Your task to perform on an android device: Open Google Maps Image 0: 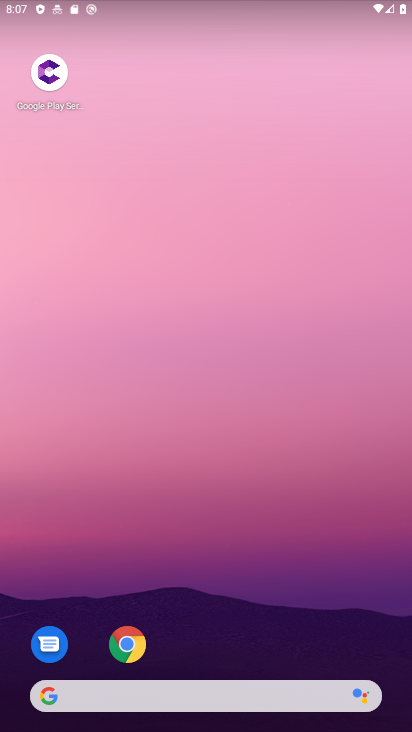
Step 0: drag from (215, 447) to (202, 374)
Your task to perform on an android device: Open Google Maps Image 1: 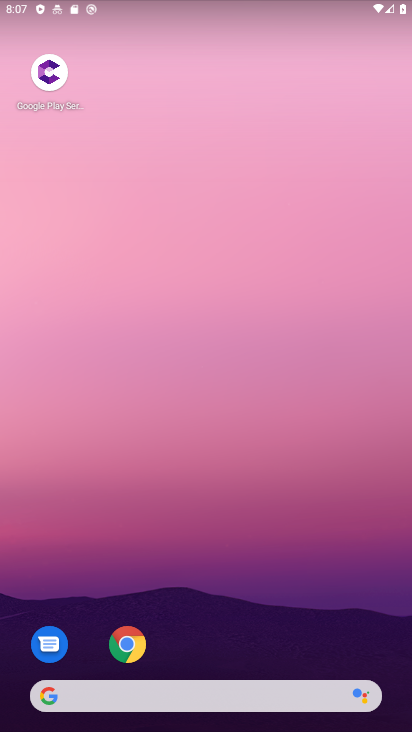
Step 1: drag from (332, 702) to (227, 255)
Your task to perform on an android device: Open Google Maps Image 2: 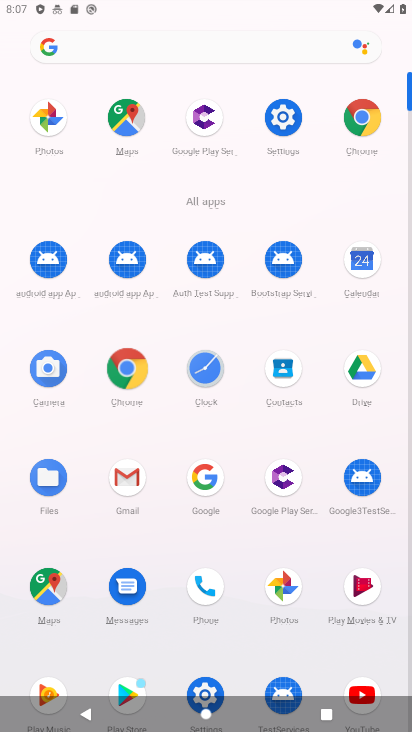
Step 2: drag from (288, 696) to (129, 119)
Your task to perform on an android device: Open Google Maps Image 3: 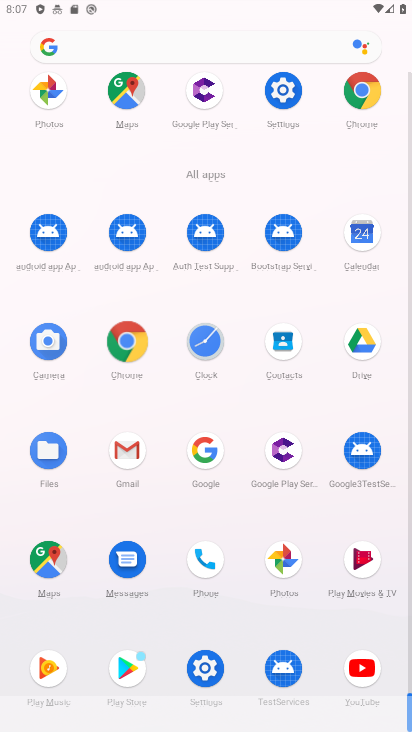
Step 3: click (46, 561)
Your task to perform on an android device: Open Google Maps Image 4: 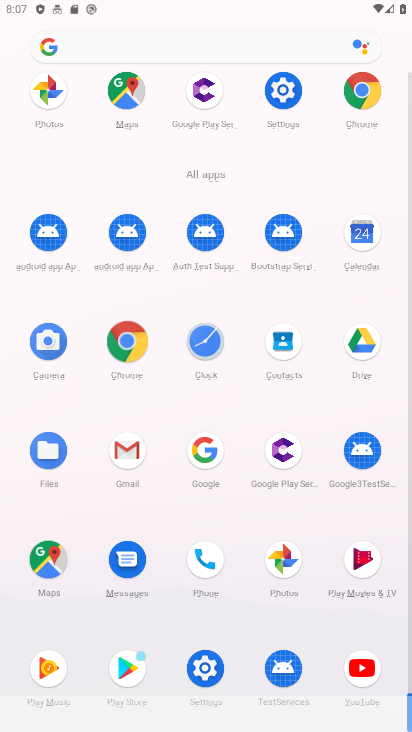
Step 4: click (52, 557)
Your task to perform on an android device: Open Google Maps Image 5: 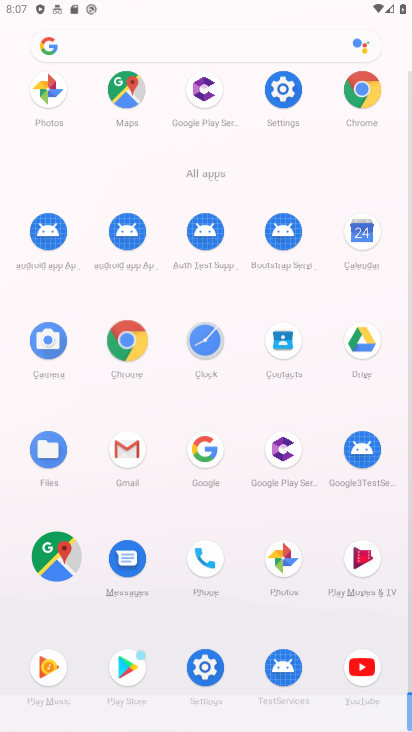
Step 5: click (52, 557)
Your task to perform on an android device: Open Google Maps Image 6: 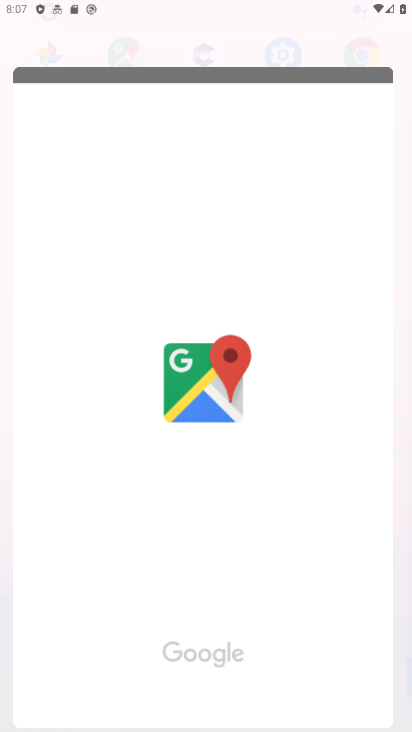
Step 6: click (52, 557)
Your task to perform on an android device: Open Google Maps Image 7: 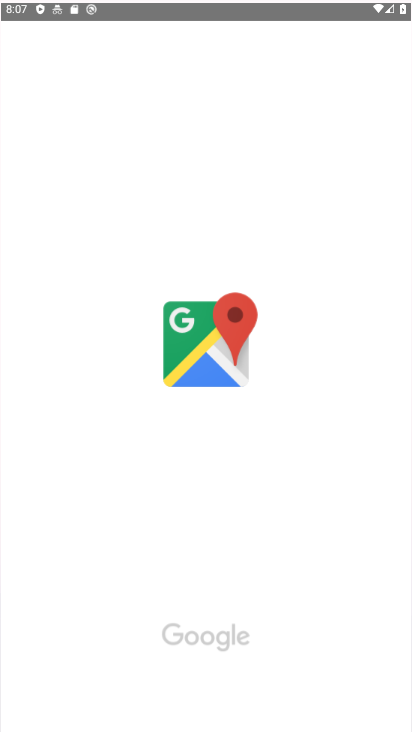
Step 7: click (52, 557)
Your task to perform on an android device: Open Google Maps Image 8: 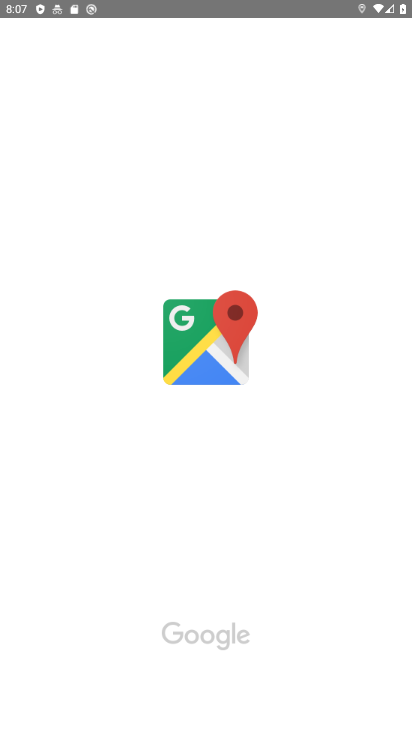
Step 8: click (52, 557)
Your task to perform on an android device: Open Google Maps Image 9: 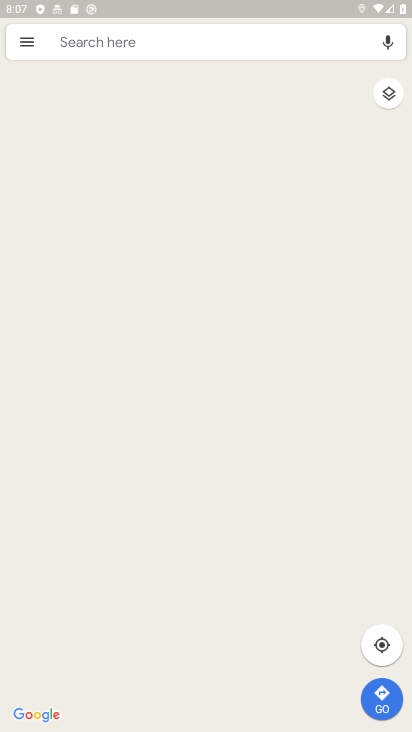
Step 9: click (52, 557)
Your task to perform on an android device: Open Google Maps Image 10: 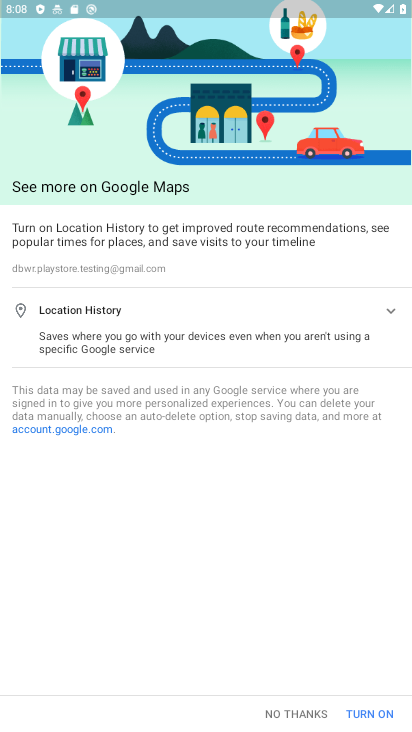
Step 10: task complete